Your task to perform on an android device: turn off notifications settings in the gmail app Image 0: 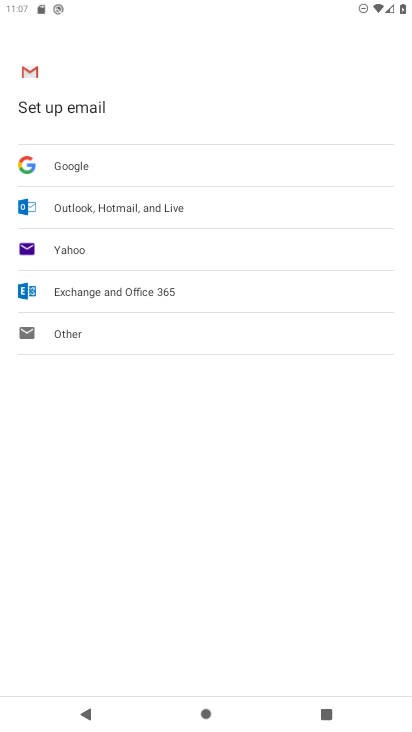
Step 0: press back button
Your task to perform on an android device: turn off notifications settings in the gmail app Image 1: 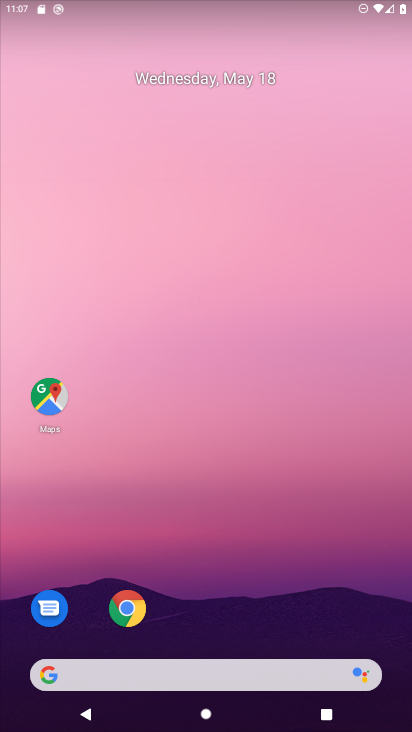
Step 1: drag from (235, 627) to (249, 121)
Your task to perform on an android device: turn off notifications settings in the gmail app Image 2: 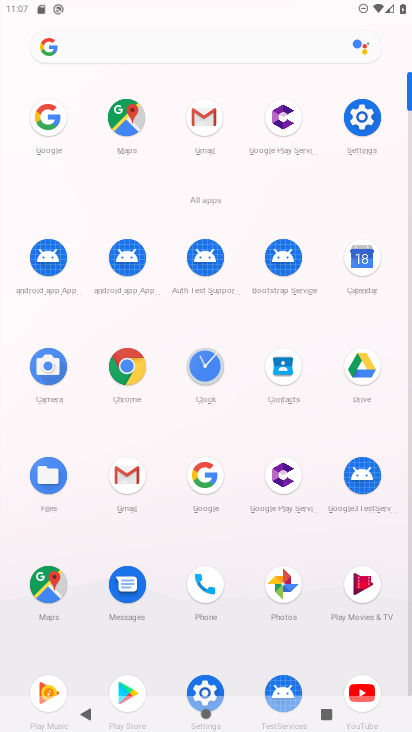
Step 2: click (203, 115)
Your task to perform on an android device: turn off notifications settings in the gmail app Image 3: 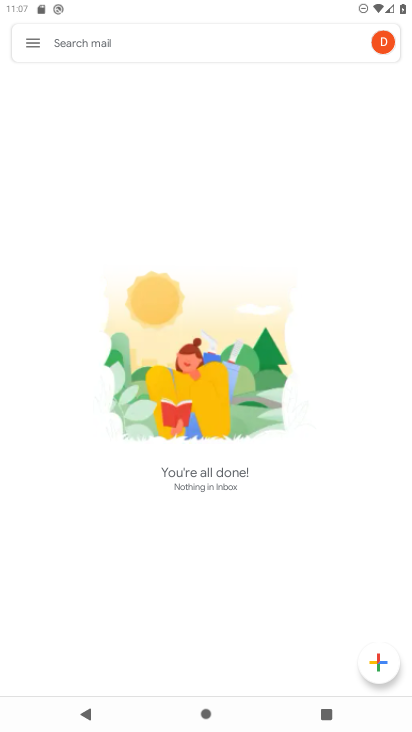
Step 3: click (32, 42)
Your task to perform on an android device: turn off notifications settings in the gmail app Image 4: 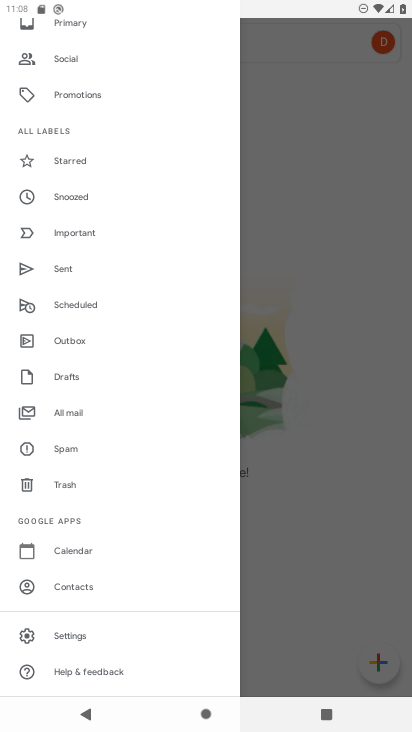
Step 4: drag from (114, 601) to (138, 521)
Your task to perform on an android device: turn off notifications settings in the gmail app Image 5: 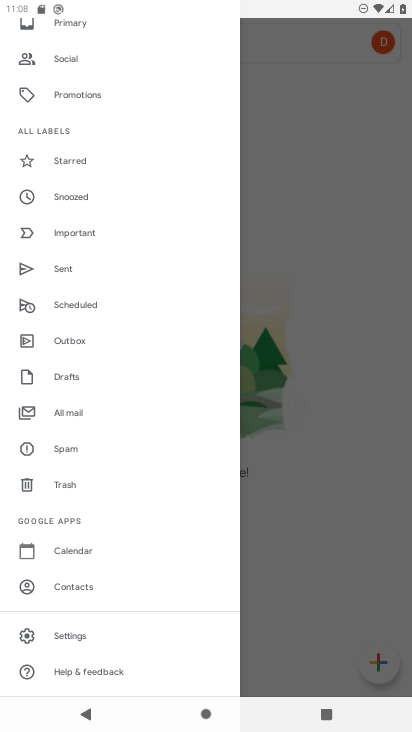
Step 5: click (78, 632)
Your task to perform on an android device: turn off notifications settings in the gmail app Image 6: 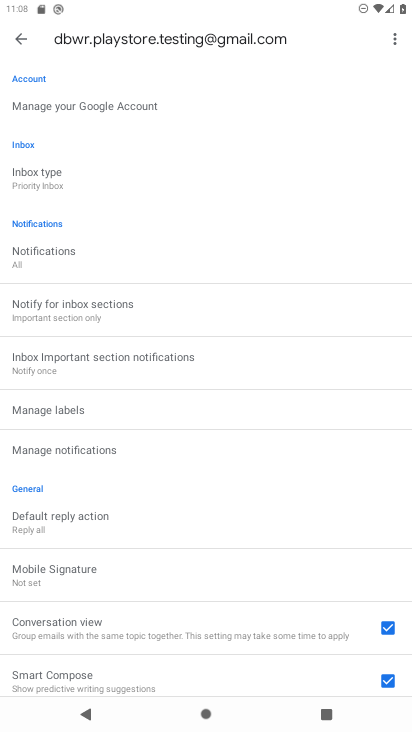
Step 6: click (91, 452)
Your task to perform on an android device: turn off notifications settings in the gmail app Image 7: 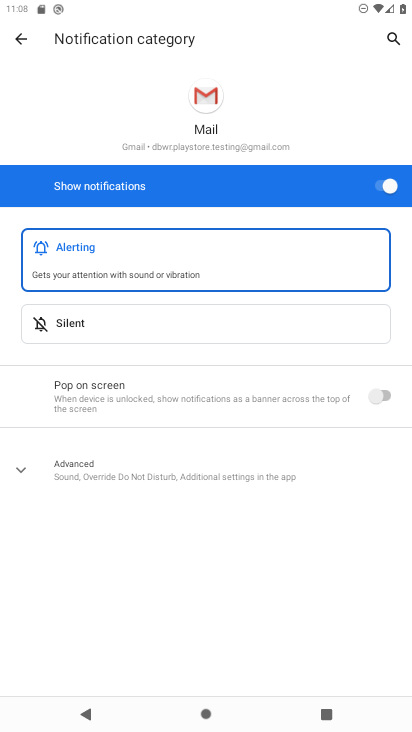
Step 7: click (389, 184)
Your task to perform on an android device: turn off notifications settings in the gmail app Image 8: 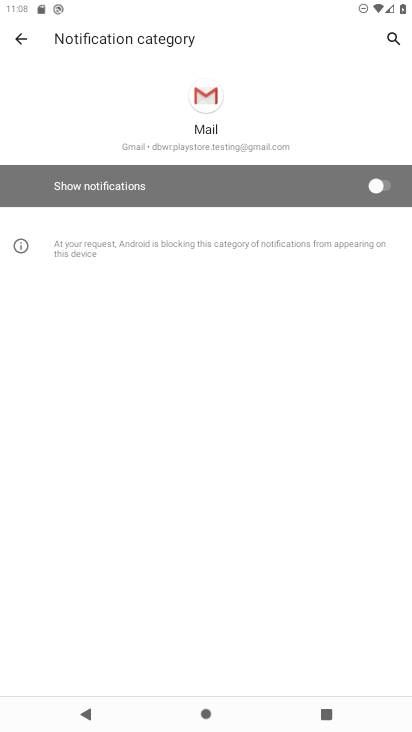
Step 8: task complete